Your task to perform on an android device: Go to settings Image 0: 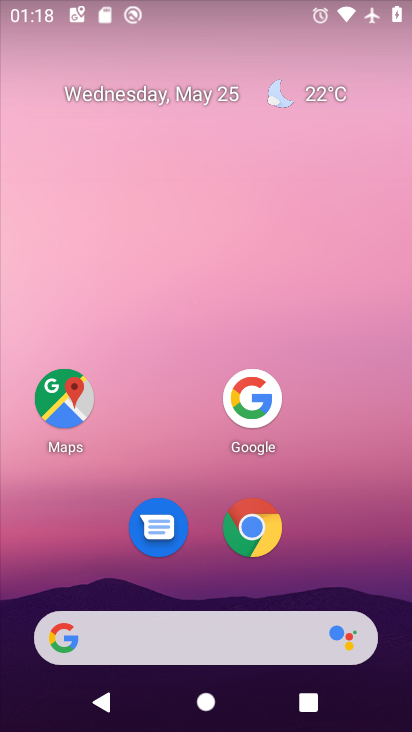
Step 0: press home button
Your task to perform on an android device: Go to settings Image 1: 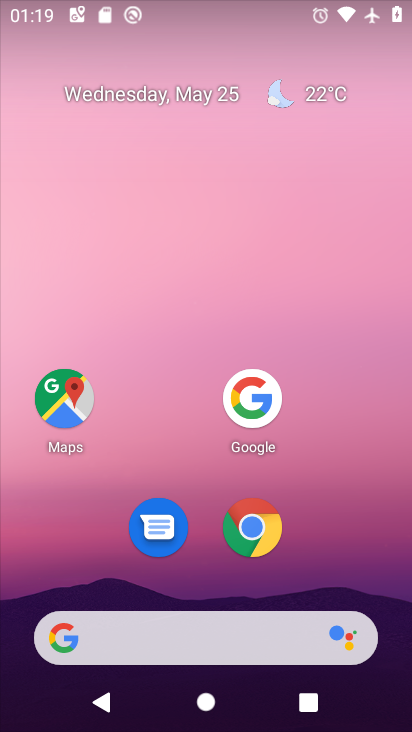
Step 1: drag from (175, 636) to (295, 83)
Your task to perform on an android device: Go to settings Image 2: 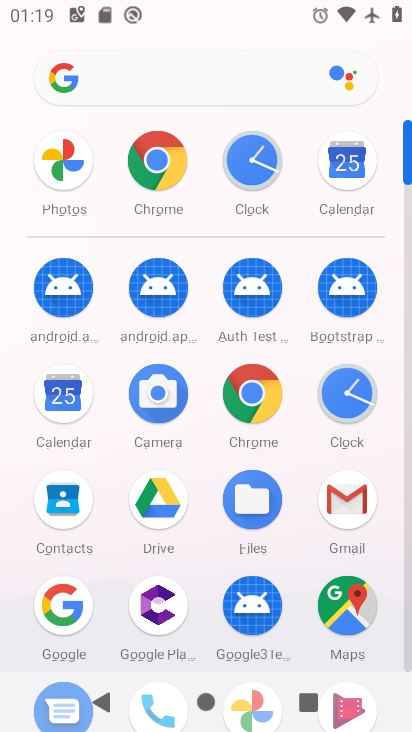
Step 2: drag from (211, 520) to (313, 215)
Your task to perform on an android device: Go to settings Image 3: 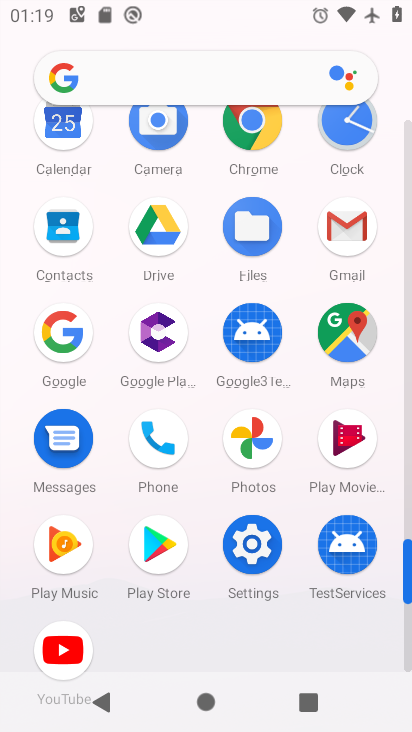
Step 3: click (258, 563)
Your task to perform on an android device: Go to settings Image 4: 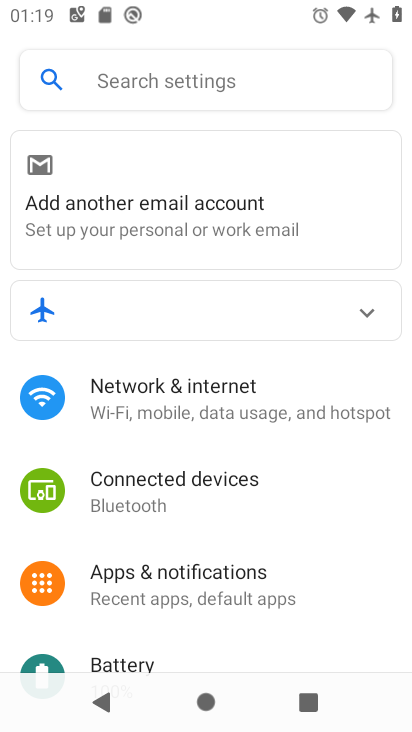
Step 4: task complete